Your task to perform on an android device: Open the Play Movies app and select the watchlist tab. Image 0: 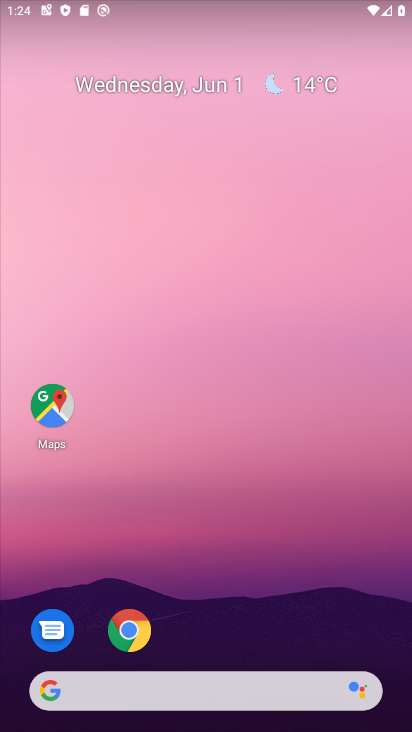
Step 0: press home button
Your task to perform on an android device: Open the Play Movies app and select the watchlist tab. Image 1: 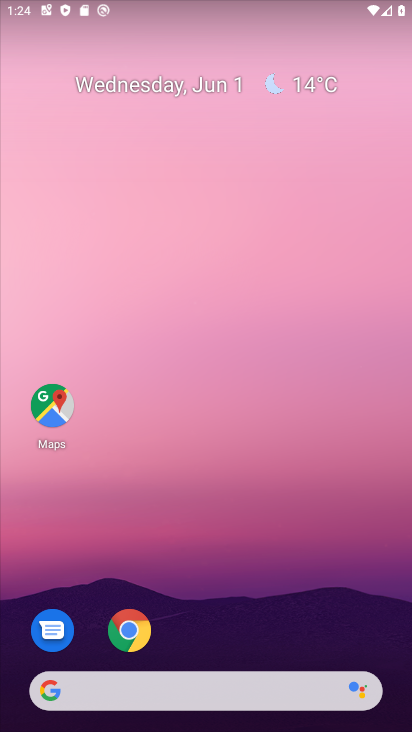
Step 1: drag from (223, 656) to (289, 115)
Your task to perform on an android device: Open the Play Movies app and select the watchlist tab. Image 2: 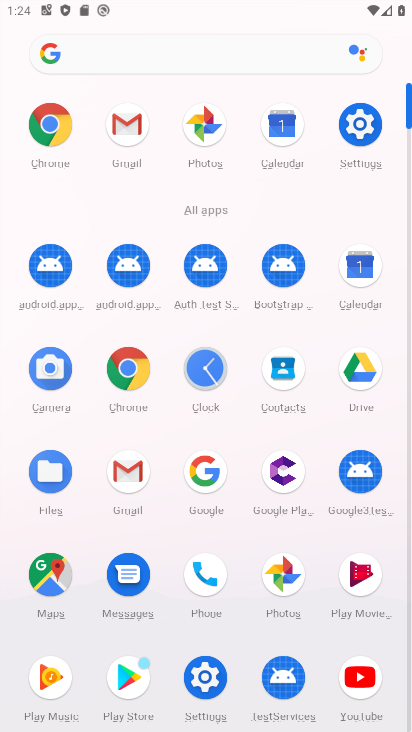
Step 2: click (359, 567)
Your task to perform on an android device: Open the Play Movies app and select the watchlist tab. Image 3: 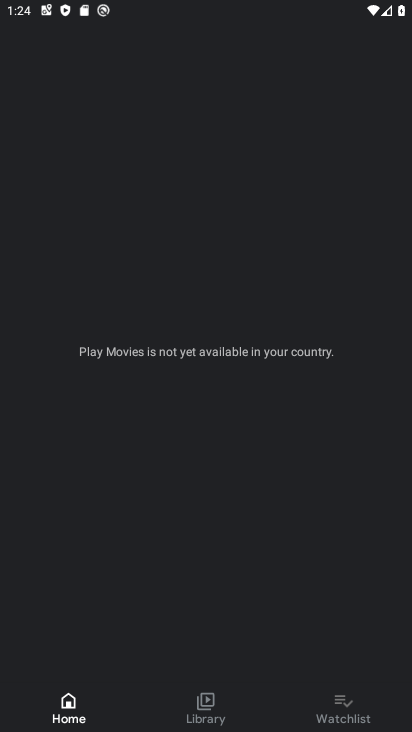
Step 3: click (339, 697)
Your task to perform on an android device: Open the Play Movies app and select the watchlist tab. Image 4: 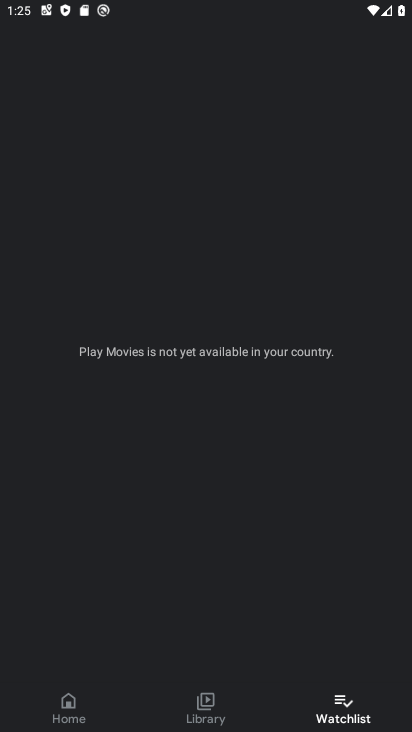
Step 4: task complete